Your task to perform on an android device: Search for "beats solo 3" on walmart.com, select the first entry, and add it to the cart. Image 0: 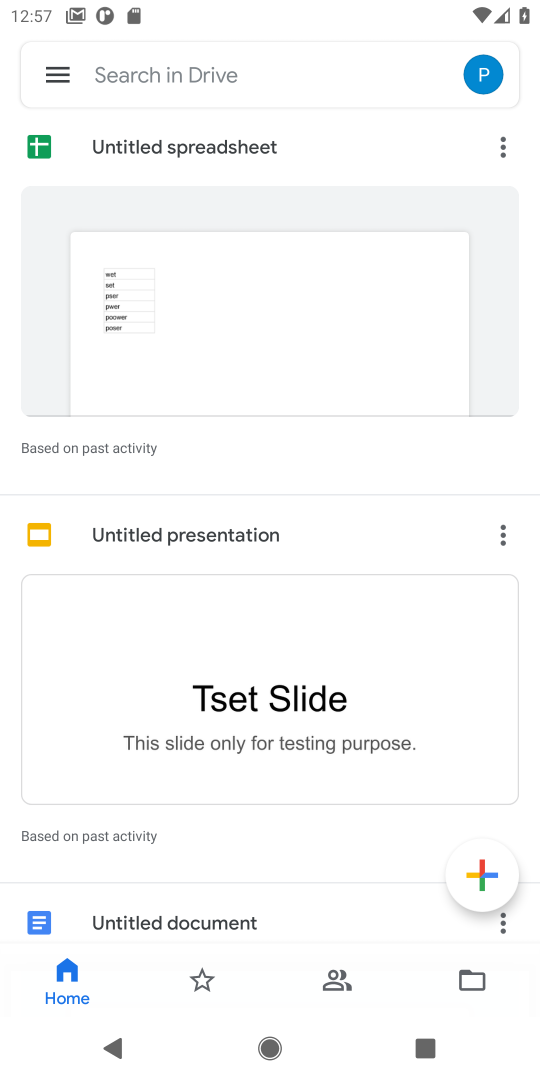
Step 0: press home button
Your task to perform on an android device: Search for "beats solo 3" on walmart.com, select the first entry, and add it to the cart. Image 1: 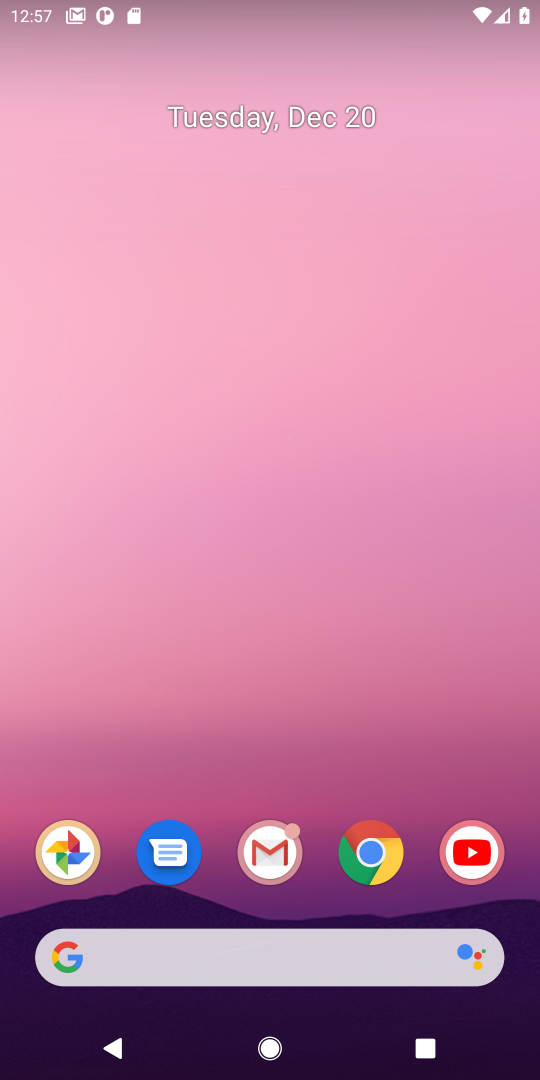
Step 1: click (370, 860)
Your task to perform on an android device: Search for "beats solo 3" on walmart.com, select the first entry, and add it to the cart. Image 2: 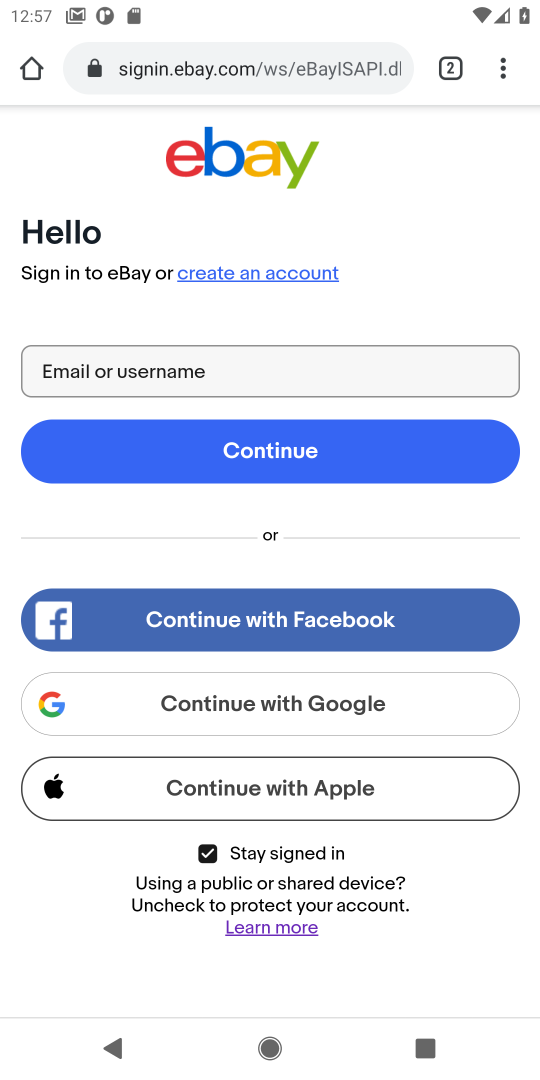
Step 2: click (212, 63)
Your task to perform on an android device: Search for "beats solo 3" on walmart.com, select the first entry, and add it to the cart. Image 3: 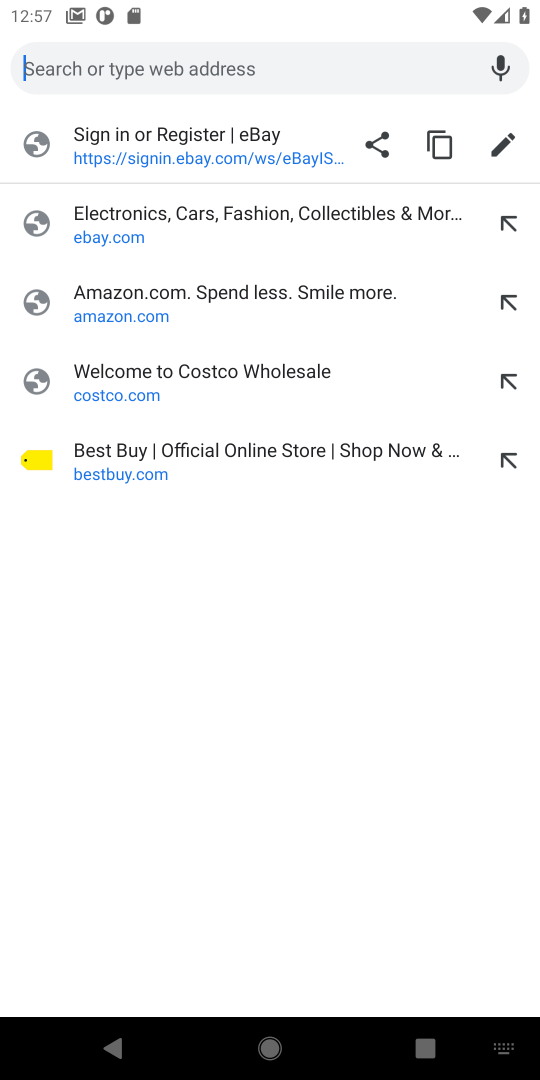
Step 3: type "walmart.com"
Your task to perform on an android device: Search for "beats solo 3" on walmart.com, select the first entry, and add it to the cart. Image 4: 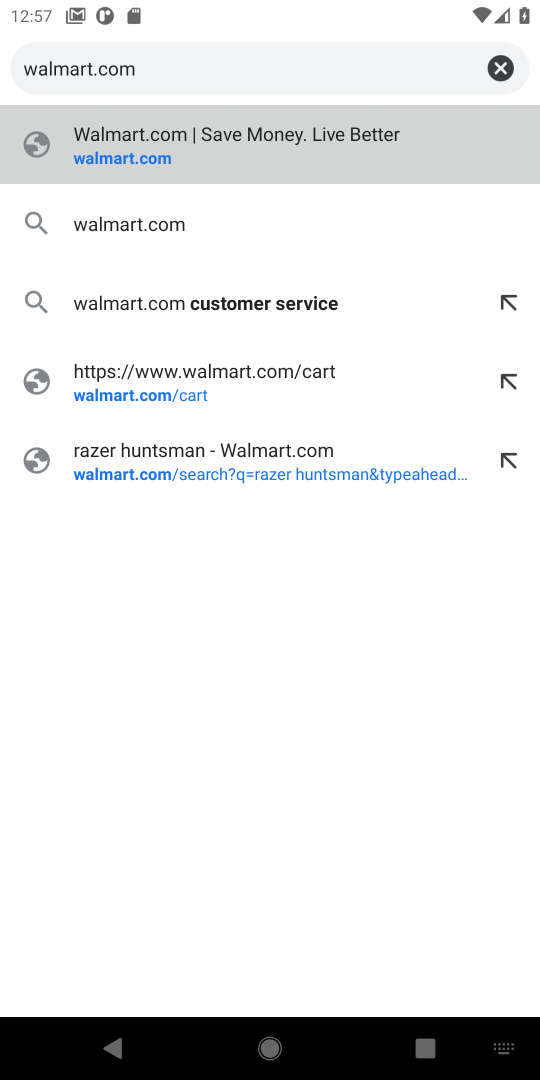
Step 4: click (140, 153)
Your task to perform on an android device: Search for "beats solo 3" on walmart.com, select the first entry, and add it to the cart. Image 5: 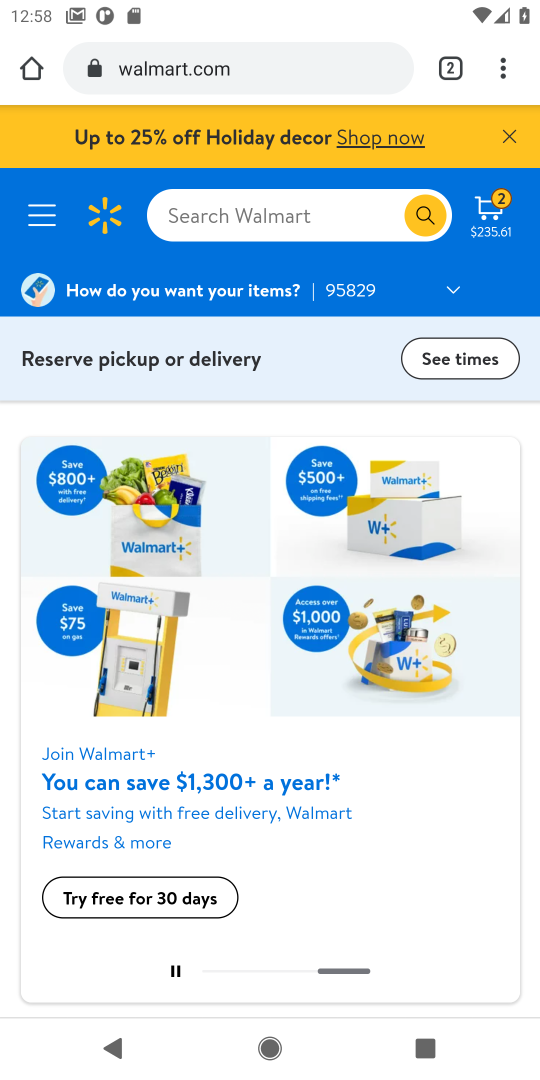
Step 5: click (206, 227)
Your task to perform on an android device: Search for "beats solo 3" on walmart.com, select the first entry, and add it to the cart. Image 6: 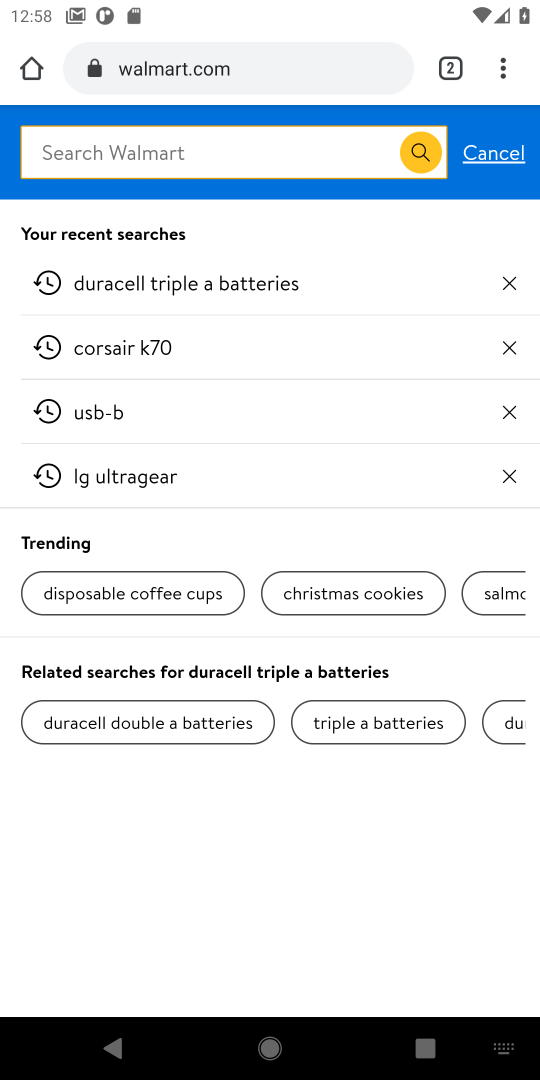
Step 6: type "beats solo 3"
Your task to perform on an android device: Search for "beats solo 3" on walmart.com, select the first entry, and add it to the cart. Image 7: 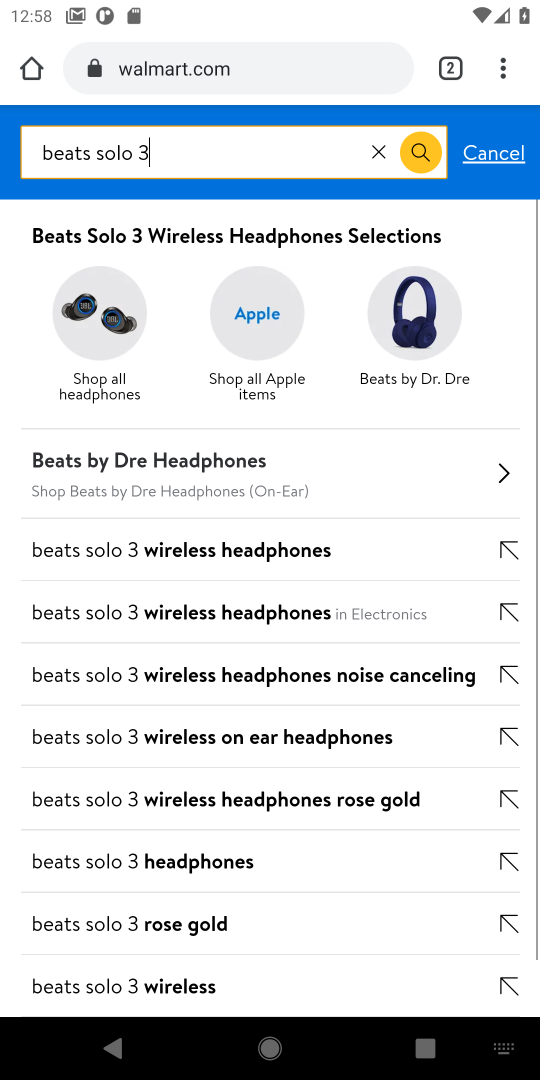
Step 7: drag from (206, 914) to (178, 668)
Your task to perform on an android device: Search for "beats solo 3" on walmart.com, select the first entry, and add it to the cart. Image 8: 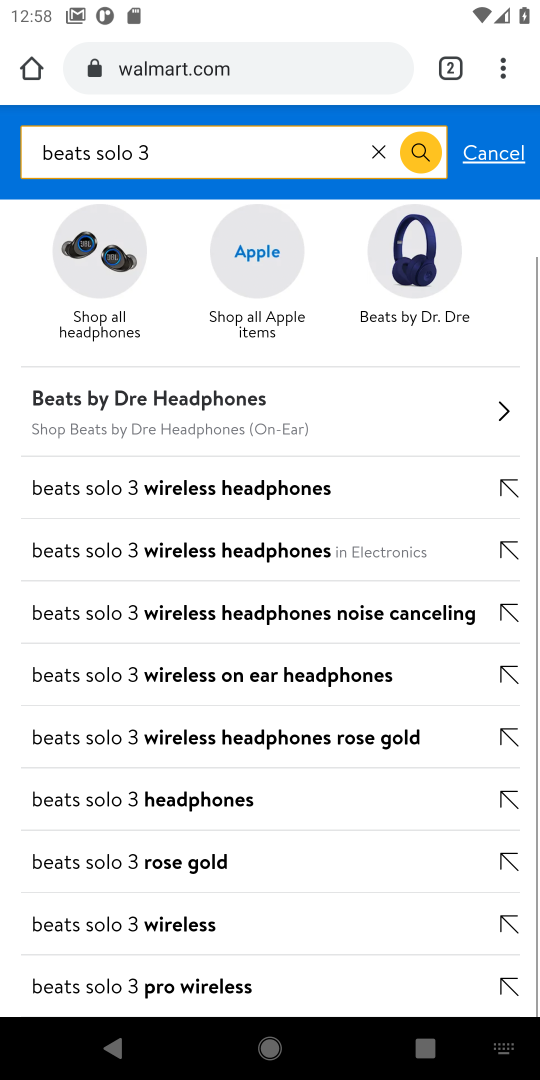
Step 8: click (420, 150)
Your task to perform on an android device: Search for "beats solo 3" on walmart.com, select the first entry, and add it to the cart. Image 9: 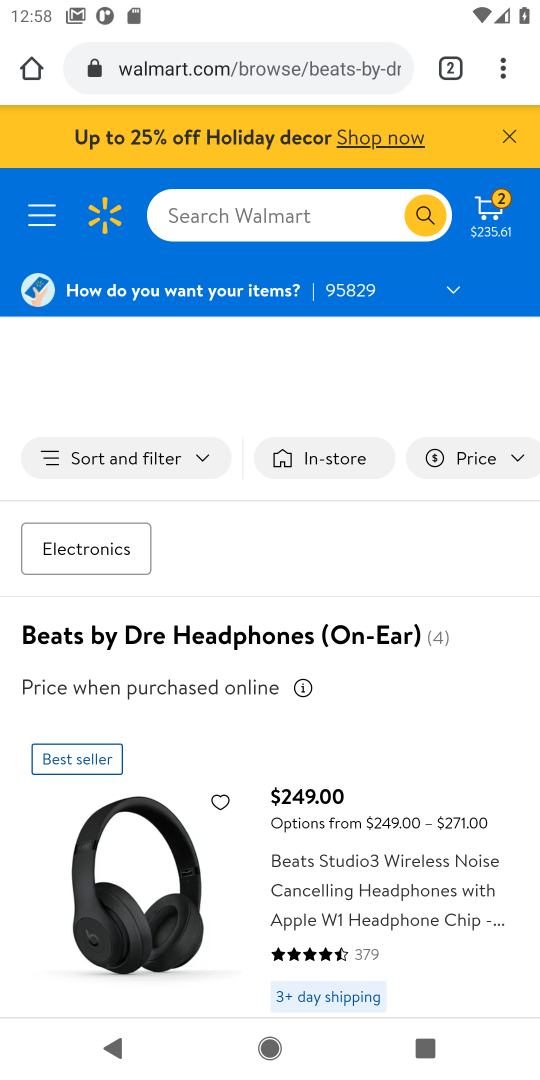
Step 9: task complete